Your task to perform on an android device: Search for vegetarian restaurants on Maps Image 0: 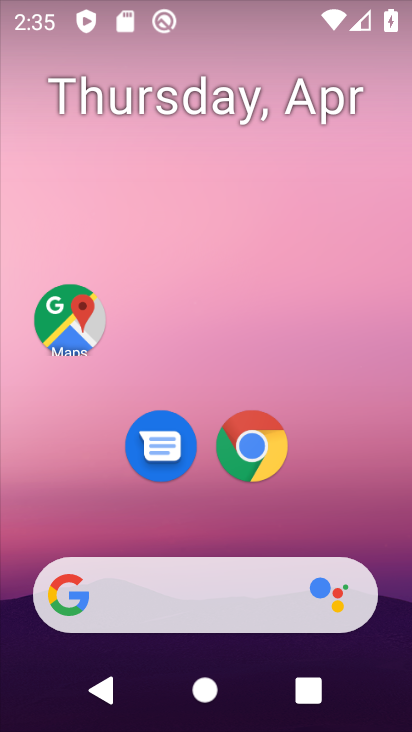
Step 0: drag from (233, 647) to (289, 171)
Your task to perform on an android device: Search for vegetarian restaurants on Maps Image 1: 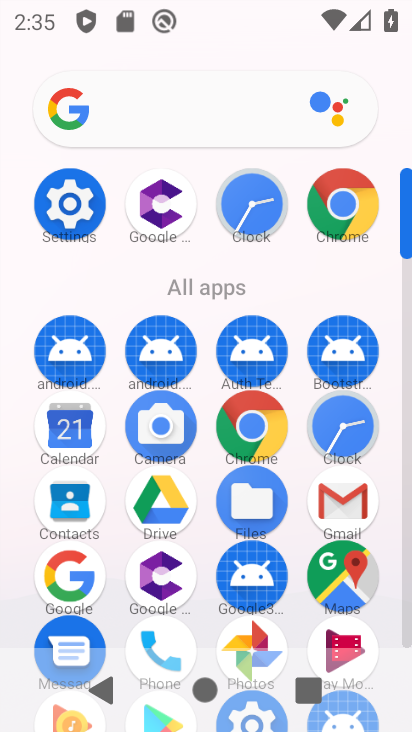
Step 1: click (345, 569)
Your task to perform on an android device: Search for vegetarian restaurants on Maps Image 2: 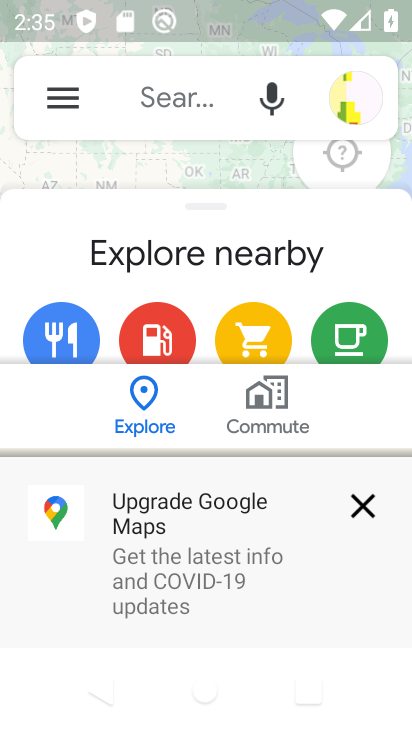
Step 2: click (364, 502)
Your task to perform on an android device: Search for vegetarian restaurants on Maps Image 3: 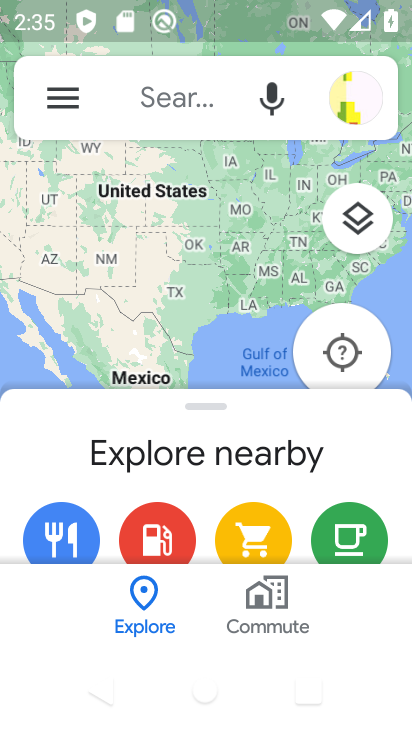
Step 3: click (166, 89)
Your task to perform on an android device: Search for vegetarian restaurants on Maps Image 4: 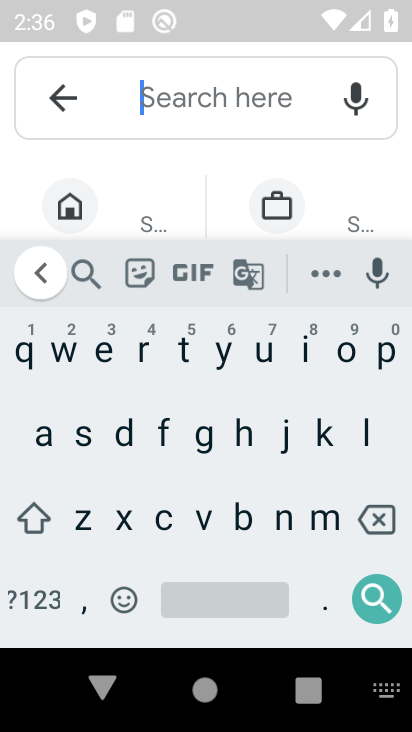
Step 4: click (204, 516)
Your task to perform on an android device: Search for vegetarian restaurants on Maps Image 5: 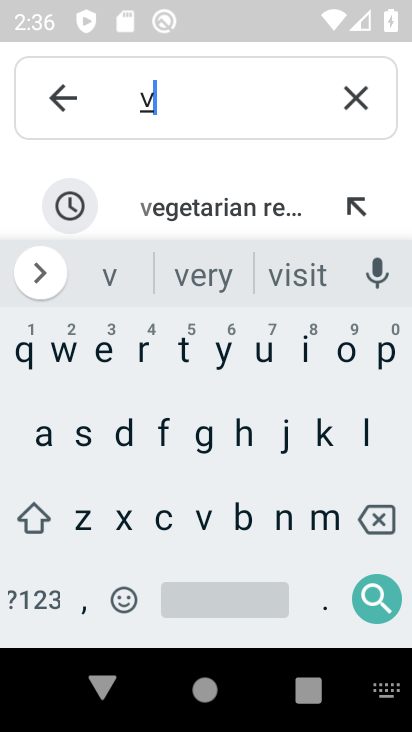
Step 5: click (222, 210)
Your task to perform on an android device: Search for vegetarian restaurants on Maps Image 6: 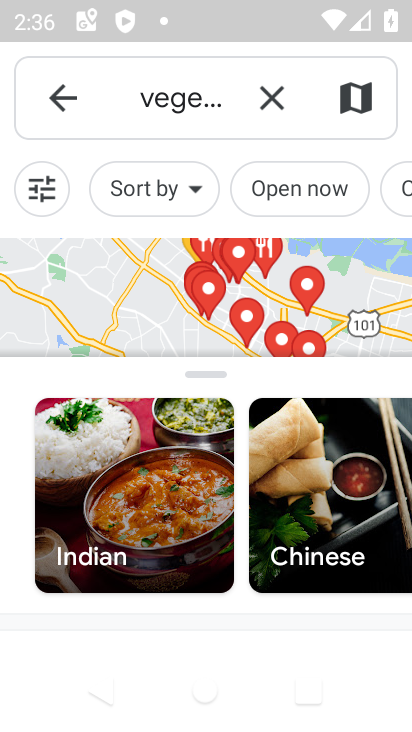
Step 6: click (260, 269)
Your task to perform on an android device: Search for vegetarian restaurants on Maps Image 7: 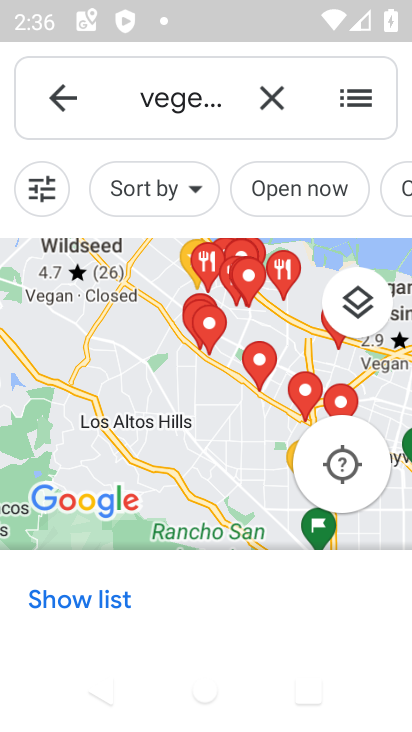
Step 7: task complete